Your task to perform on an android device: Open display settings Image 0: 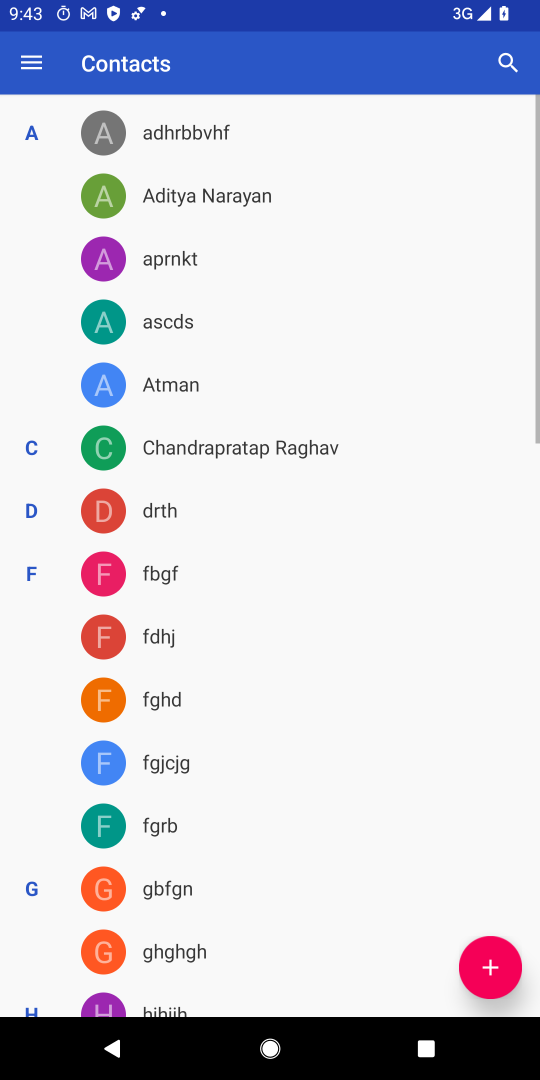
Step 0: press back button
Your task to perform on an android device: Open display settings Image 1: 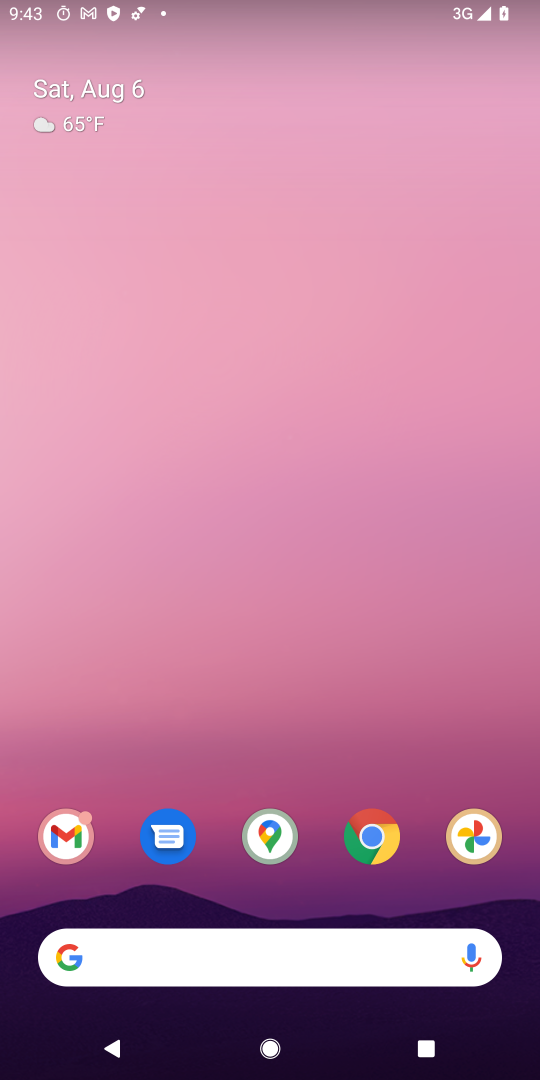
Step 1: press home button
Your task to perform on an android device: Open display settings Image 2: 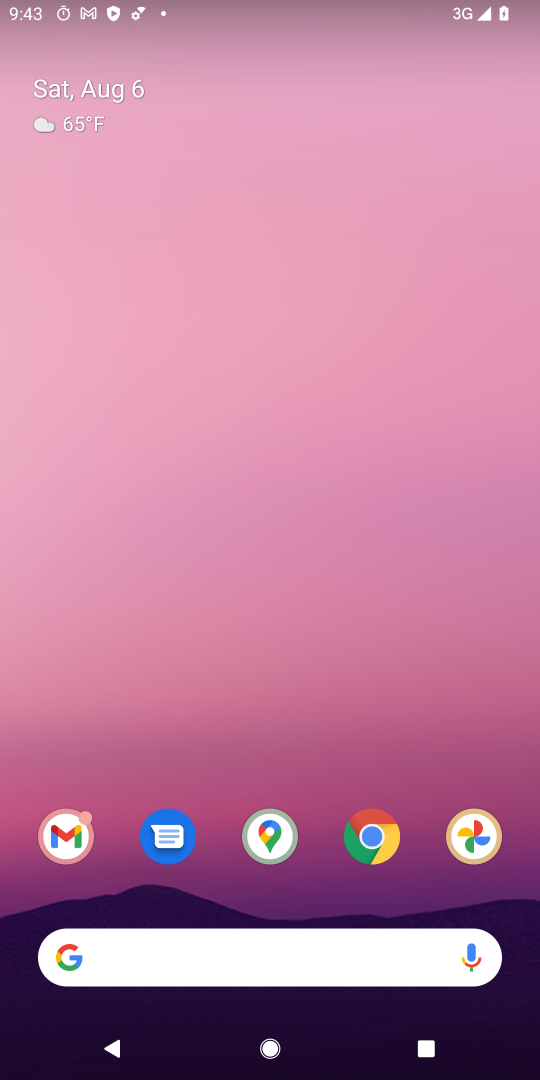
Step 2: drag from (528, 898) to (227, 86)
Your task to perform on an android device: Open display settings Image 3: 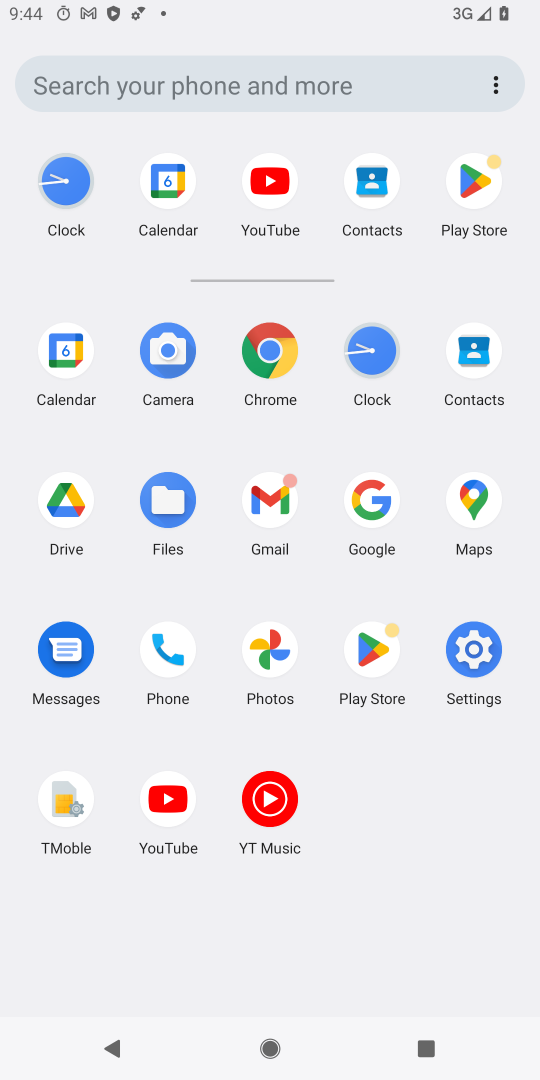
Step 3: click (472, 653)
Your task to perform on an android device: Open display settings Image 4: 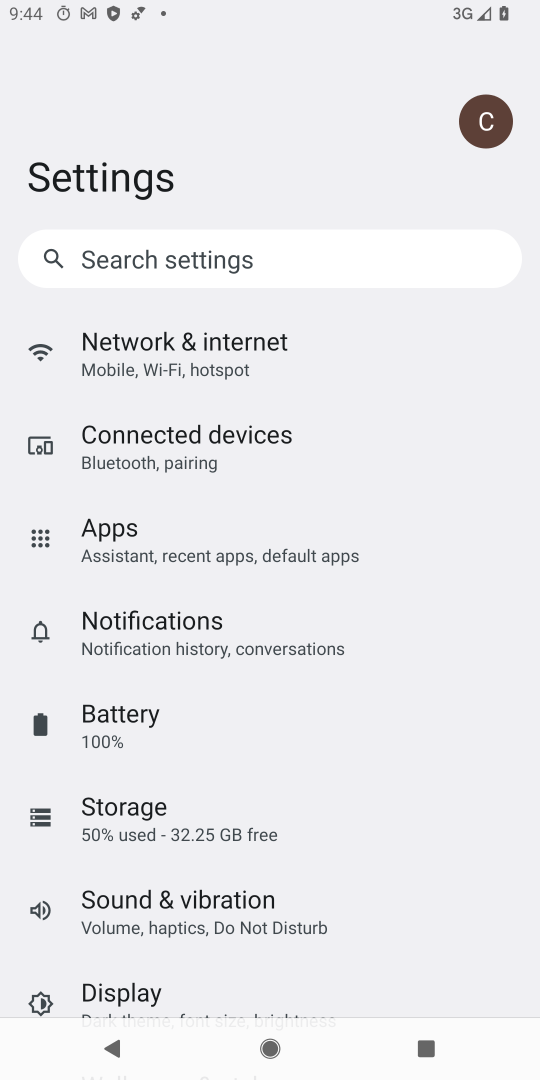
Step 4: click (138, 1006)
Your task to perform on an android device: Open display settings Image 5: 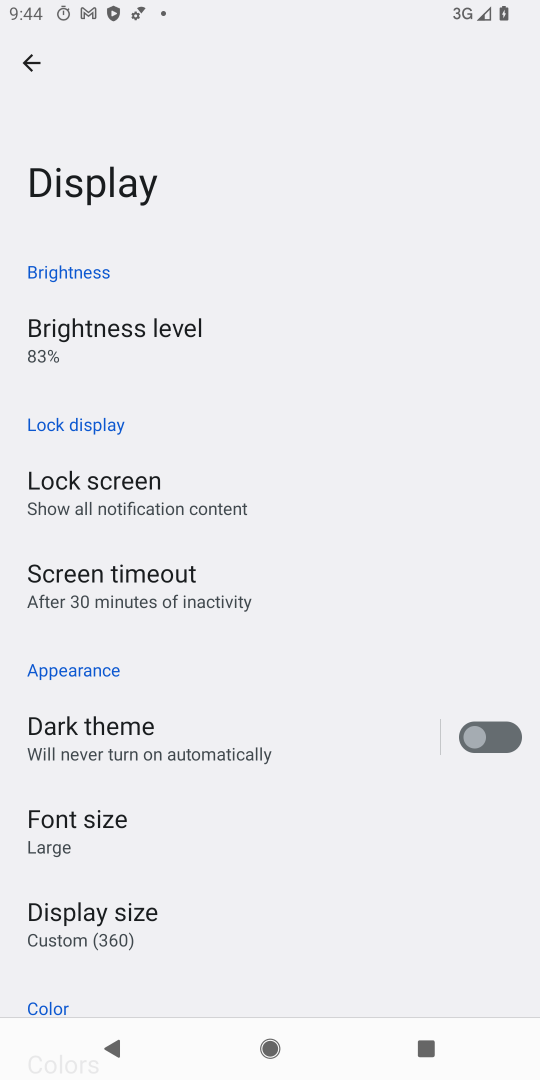
Step 5: task complete